Your task to perform on an android device: Turn off the flashlight Image 0: 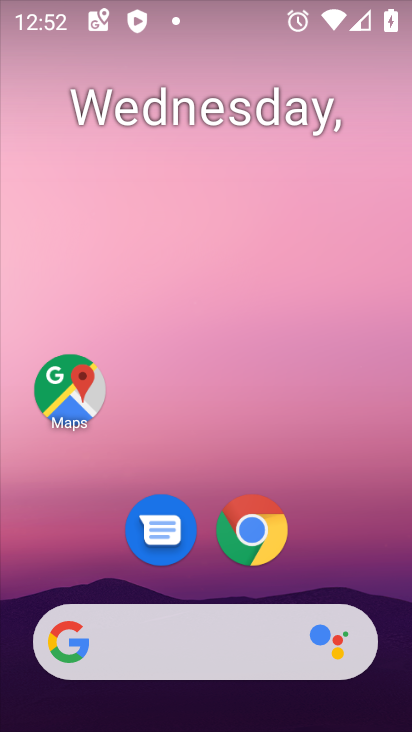
Step 0: drag from (207, 562) to (241, 219)
Your task to perform on an android device: Turn off the flashlight Image 1: 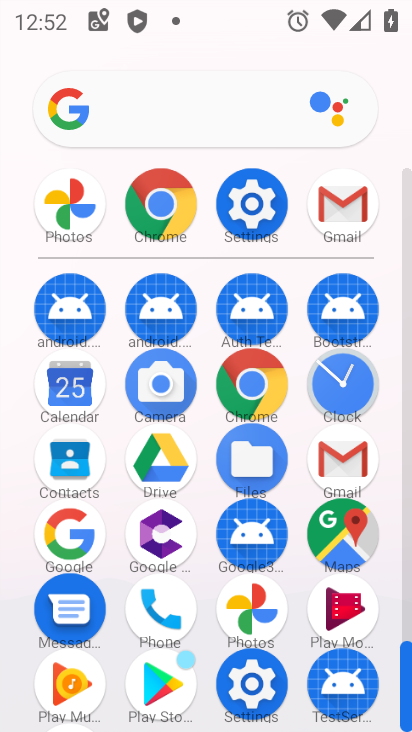
Step 1: click (254, 205)
Your task to perform on an android device: Turn off the flashlight Image 2: 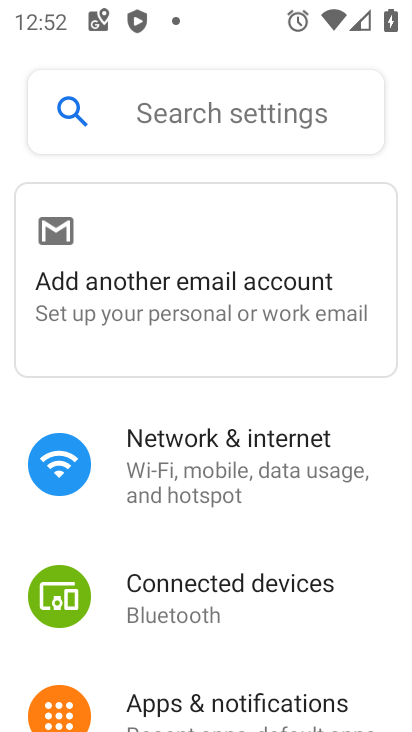
Step 2: drag from (187, 644) to (322, 224)
Your task to perform on an android device: Turn off the flashlight Image 3: 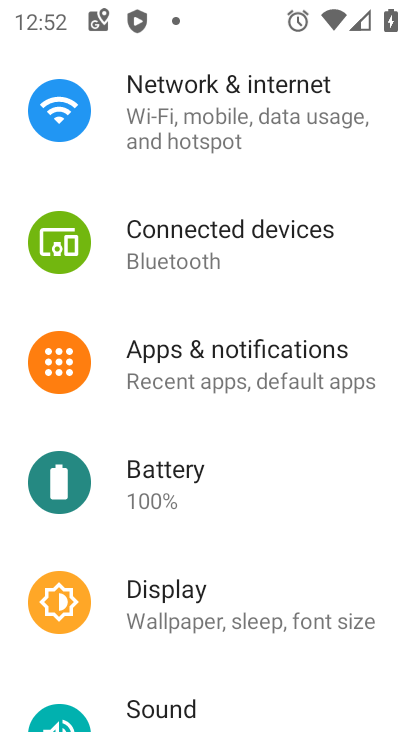
Step 3: click (257, 611)
Your task to perform on an android device: Turn off the flashlight Image 4: 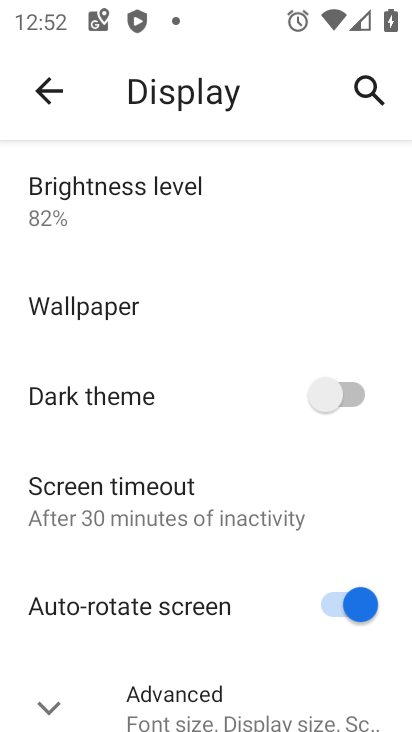
Step 4: task complete